Your task to perform on an android device: change keyboard looks Image 0: 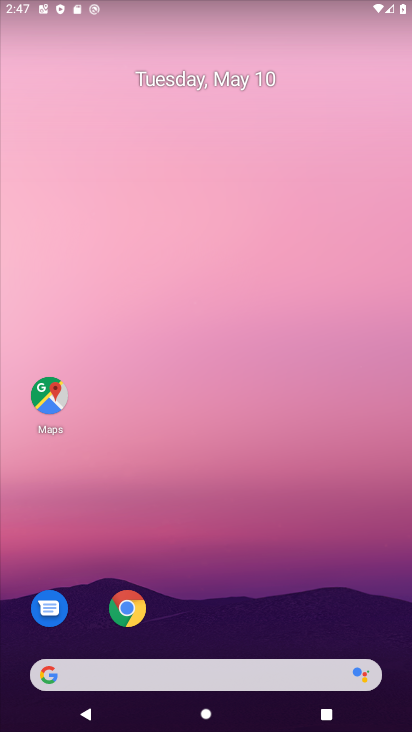
Step 0: drag from (380, 627) to (329, 114)
Your task to perform on an android device: change keyboard looks Image 1: 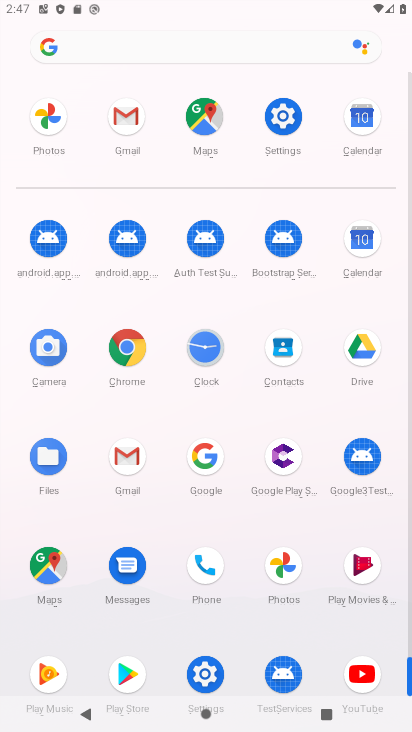
Step 1: click (204, 674)
Your task to perform on an android device: change keyboard looks Image 2: 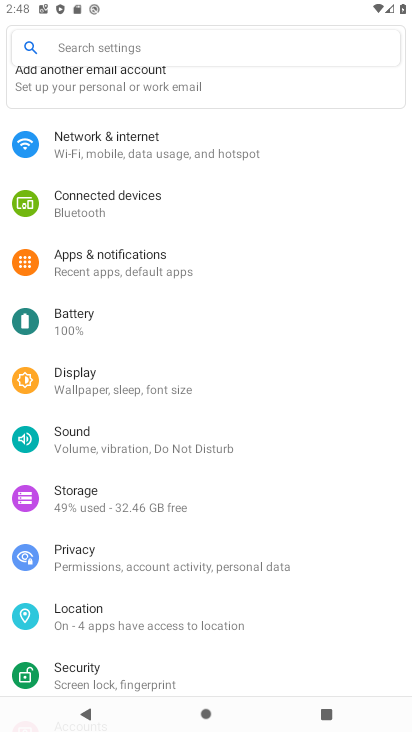
Step 2: drag from (312, 637) to (328, 213)
Your task to perform on an android device: change keyboard looks Image 3: 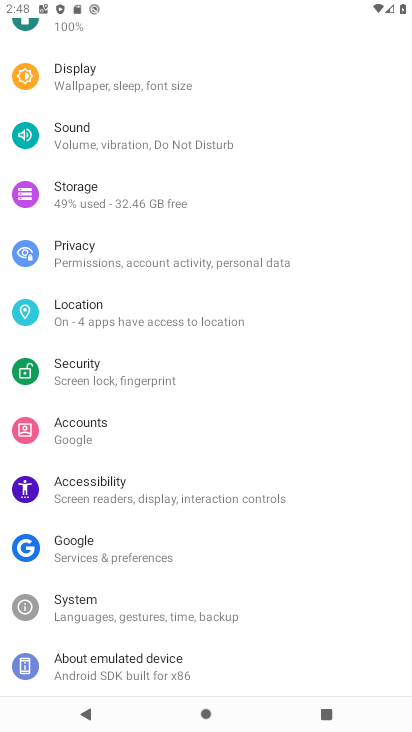
Step 3: click (77, 602)
Your task to perform on an android device: change keyboard looks Image 4: 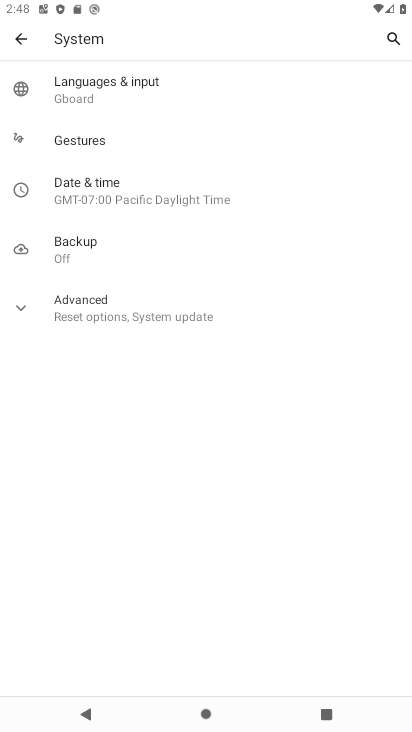
Step 4: click (83, 86)
Your task to perform on an android device: change keyboard looks Image 5: 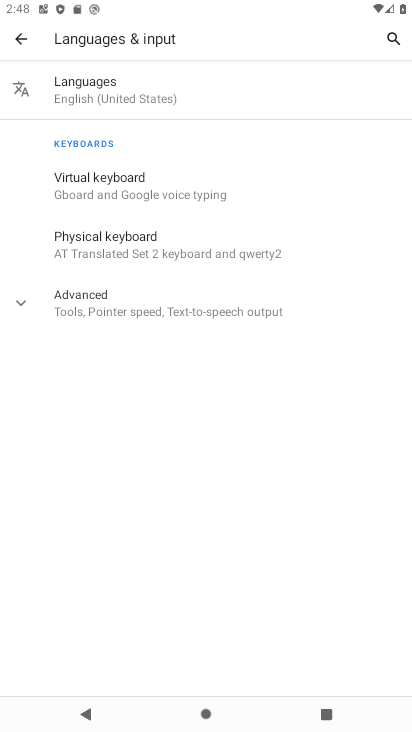
Step 5: click (106, 244)
Your task to perform on an android device: change keyboard looks Image 6: 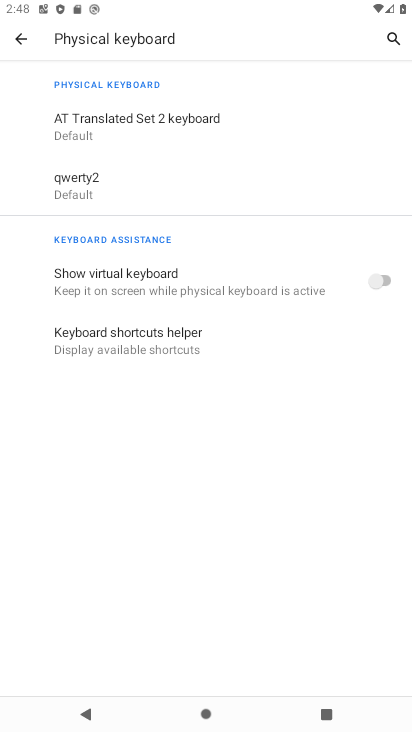
Step 6: click (79, 187)
Your task to perform on an android device: change keyboard looks Image 7: 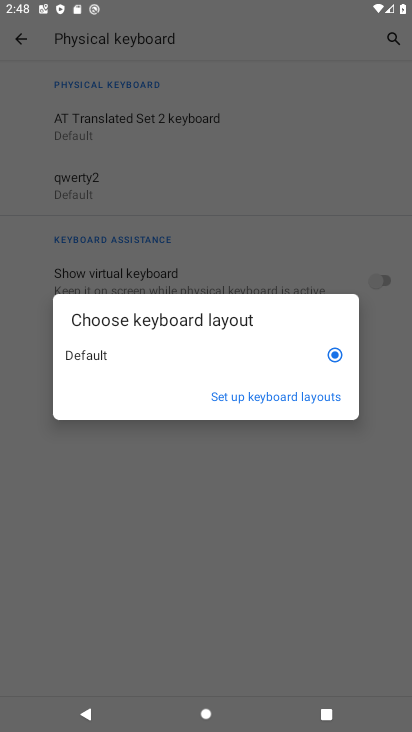
Step 7: click (281, 395)
Your task to perform on an android device: change keyboard looks Image 8: 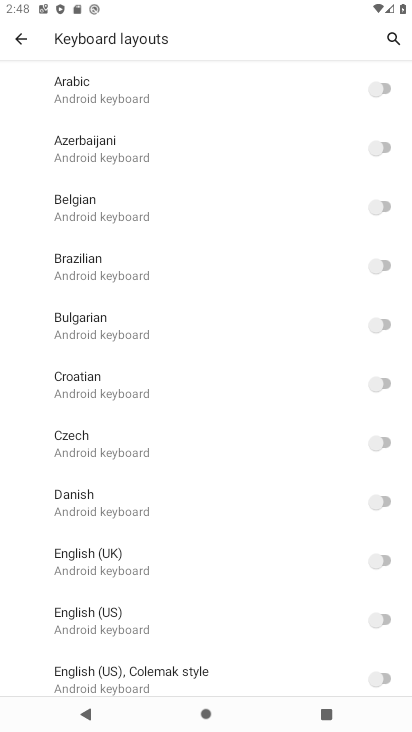
Step 8: click (389, 554)
Your task to perform on an android device: change keyboard looks Image 9: 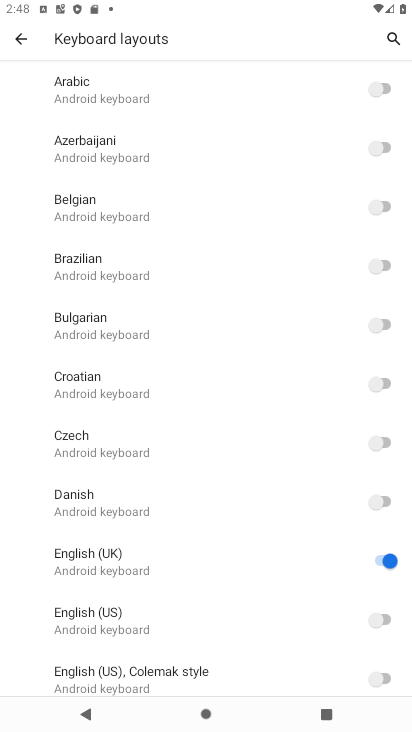
Step 9: task complete